Your task to perform on an android device: make emails show in primary in the gmail app Image 0: 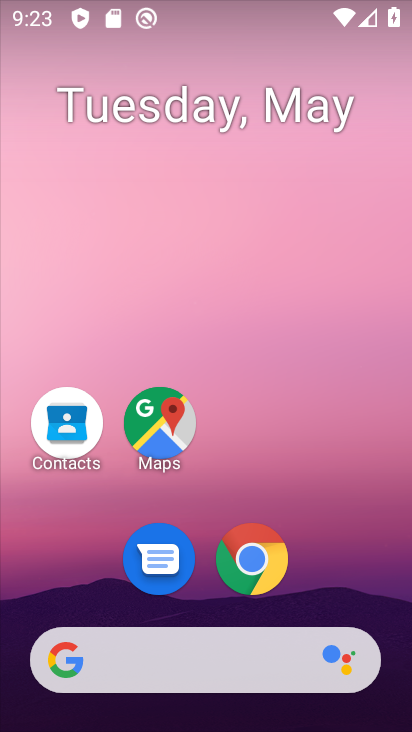
Step 0: drag from (366, 550) to (347, 465)
Your task to perform on an android device: make emails show in primary in the gmail app Image 1: 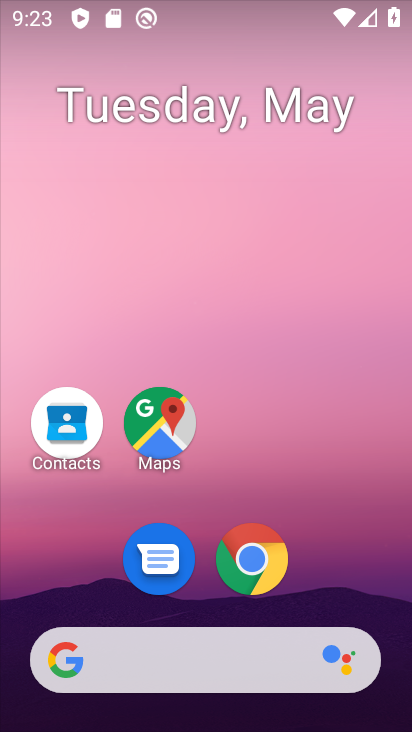
Step 1: drag from (365, 537) to (256, 139)
Your task to perform on an android device: make emails show in primary in the gmail app Image 2: 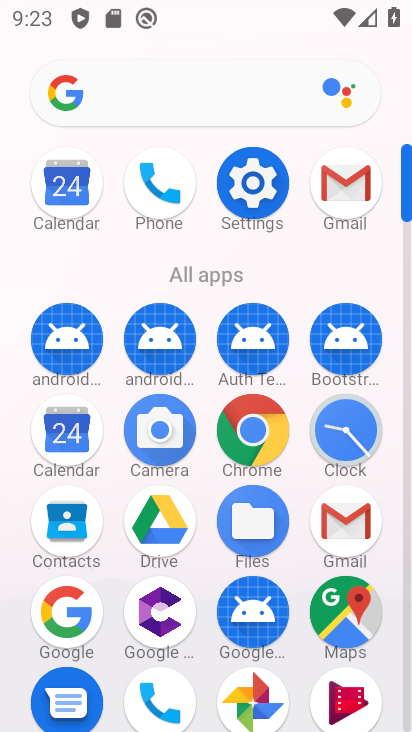
Step 2: click (329, 225)
Your task to perform on an android device: make emails show in primary in the gmail app Image 3: 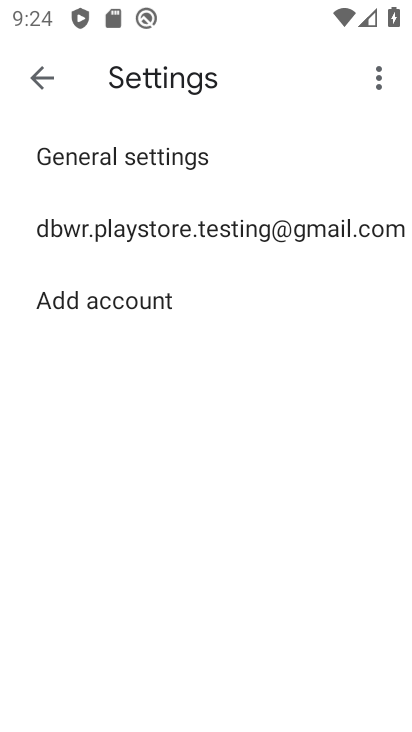
Step 3: click (45, 81)
Your task to perform on an android device: make emails show in primary in the gmail app Image 4: 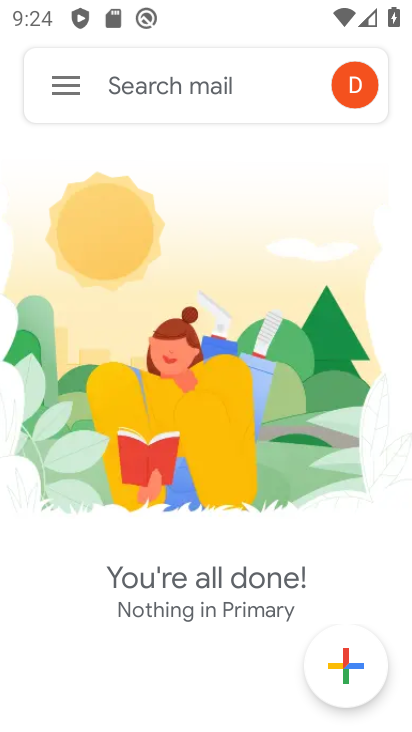
Step 4: click (73, 76)
Your task to perform on an android device: make emails show in primary in the gmail app Image 5: 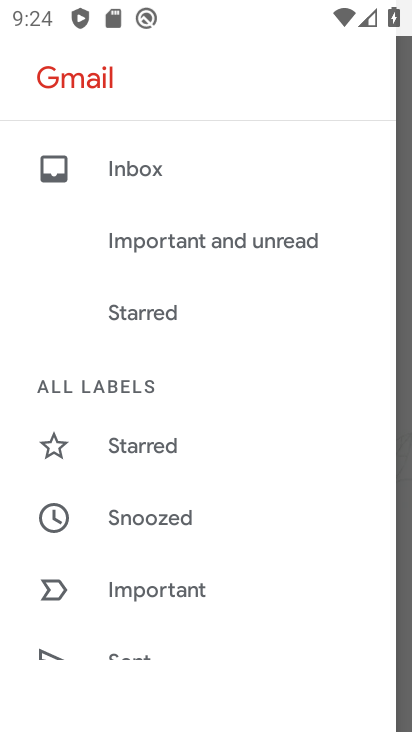
Step 5: click (152, 184)
Your task to perform on an android device: make emails show in primary in the gmail app Image 6: 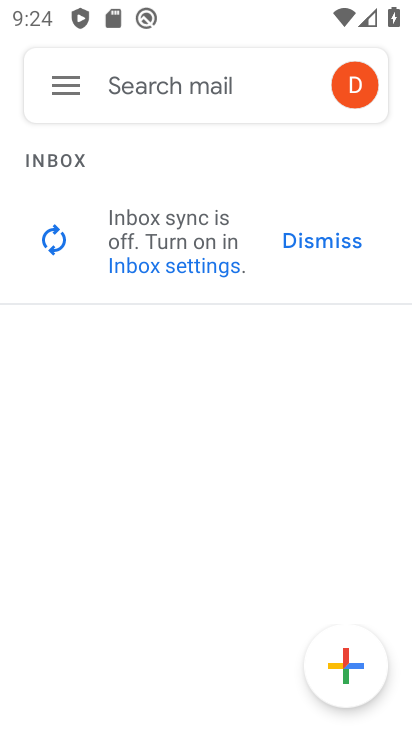
Step 6: task complete